Your task to perform on an android device: add a contact Image 0: 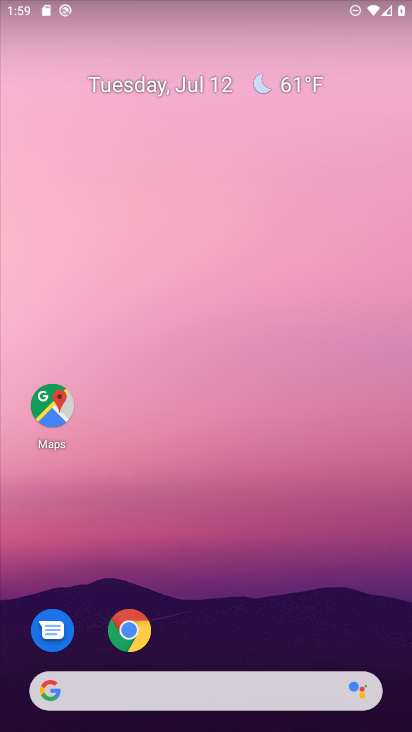
Step 0: drag from (216, 647) to (264, 84)
Your task to perform on an android device: add a contact Image 1: 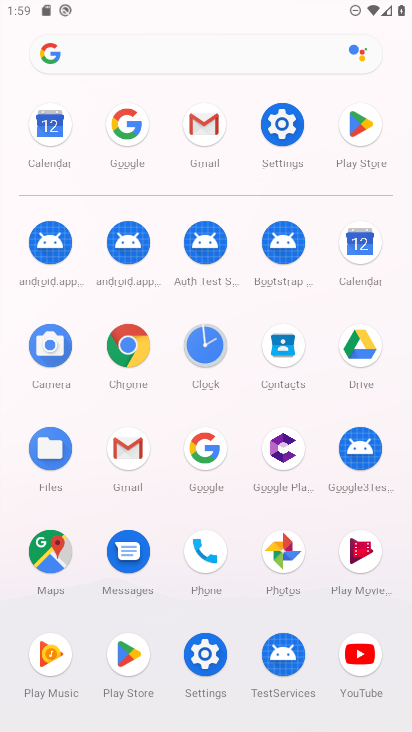
Step 1: click (265, 342)
Your task to perform on an android device: add a contact Image 2: 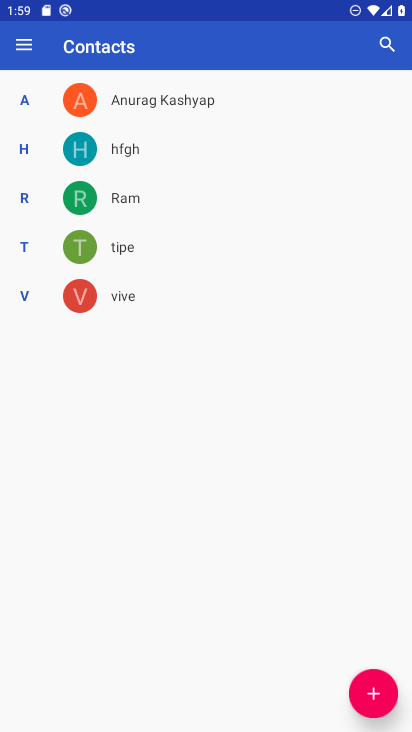
Step 2: click (376, 702)
Your task to perform on an android device: add a contact Image 3: 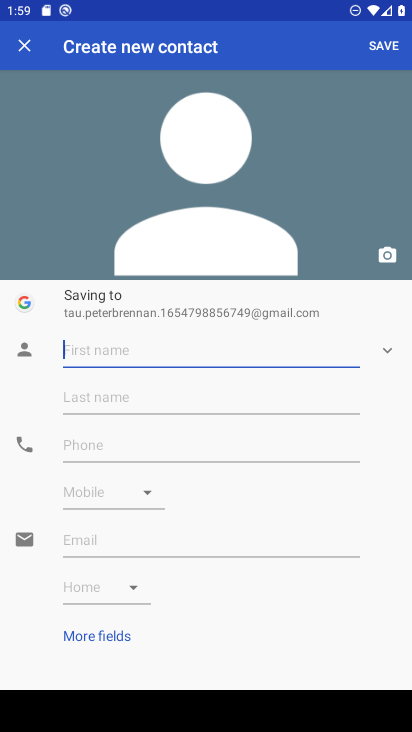
Step 3: type "gth"
Your task to perform on an android device: add a contact Image 4: 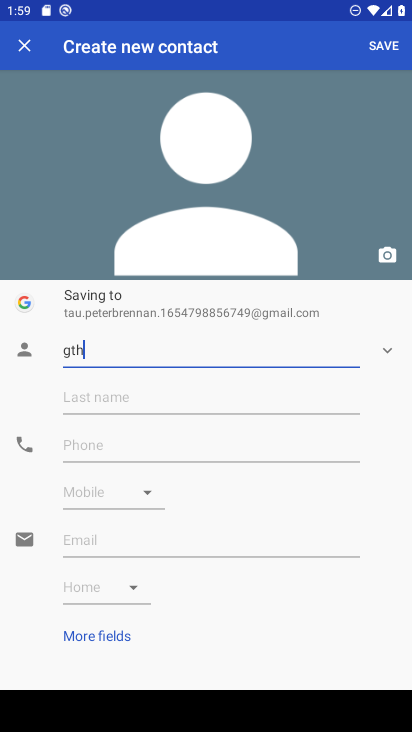
Step 4: click (126, 448)
Your task to perform on an android device: add a contact Image 5: 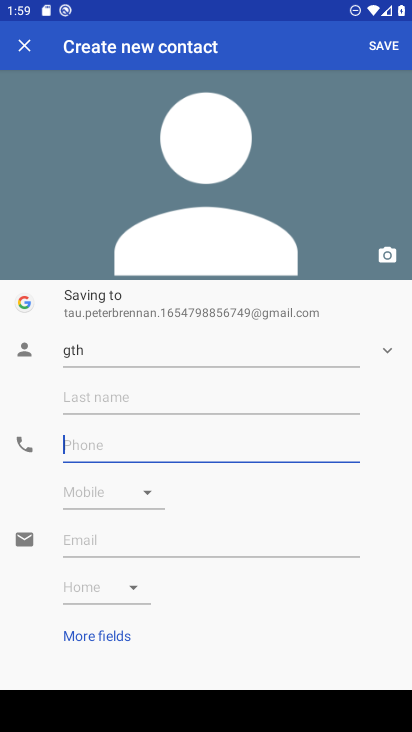
Step 5: type "78768656867"
Your task to perform on an android device: add a contact Image 6: 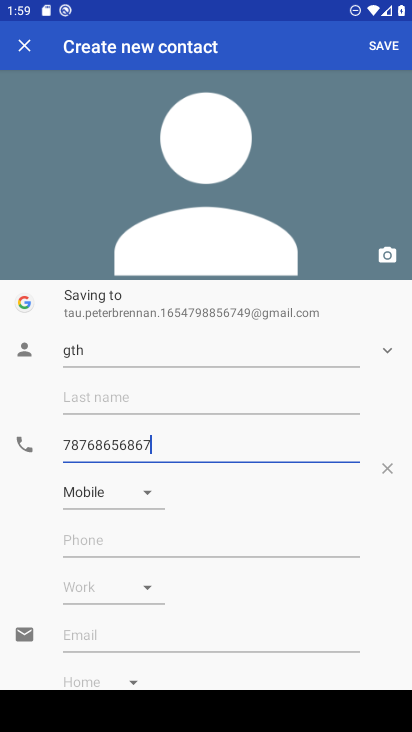
Step 6: click (378, 50)
Your task to perform on an android device: add a contact Image 7: 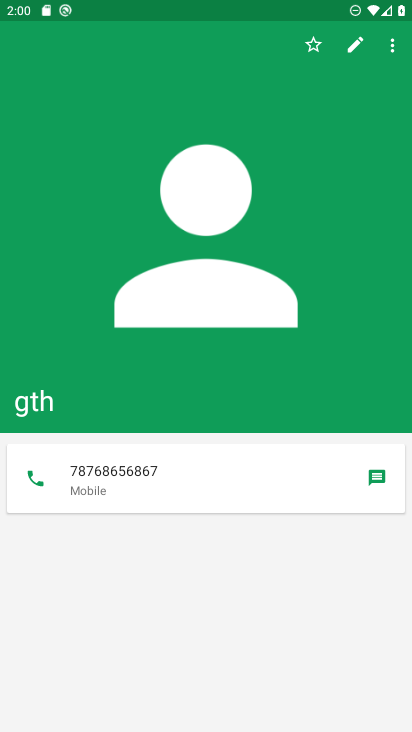
Step 7: task complete